Your task to perform on an android device: Open ESPN.com Image 0: 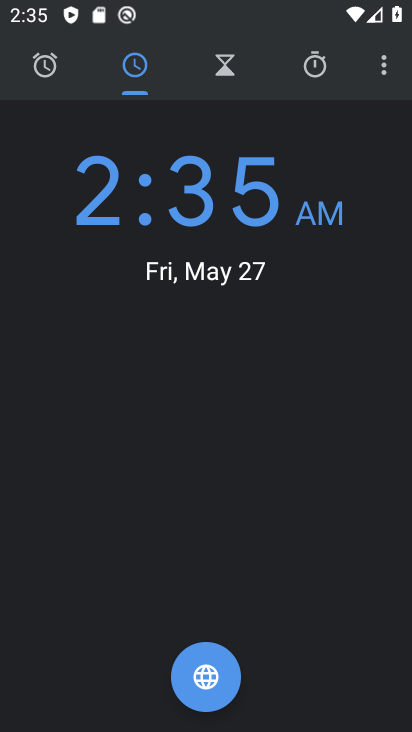
Step 0: task complete